Your task to perform on an android device: turn on translation in the chrome app Image 0: 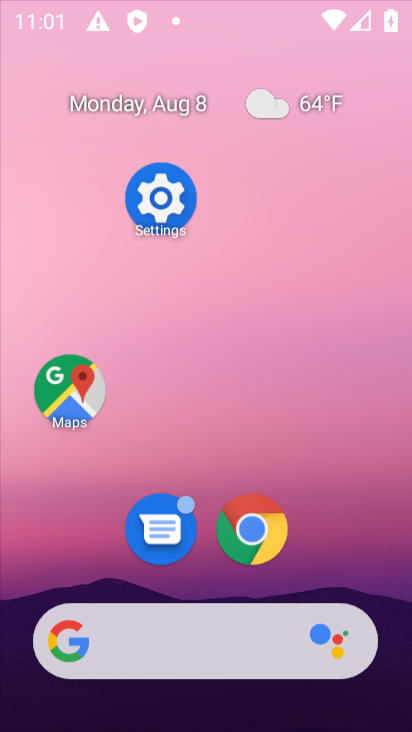
Step 0: click (229, 310)
Your task to perform on an android device: turn on translation in the chrome app Image 1: 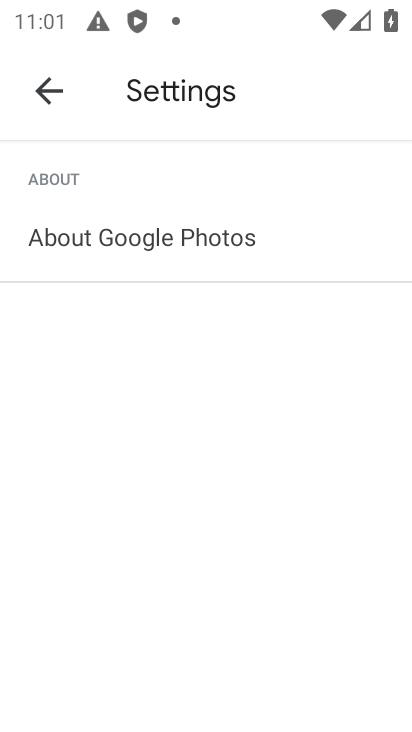
Step 1: drag from (211, 579) to (215, 310)
Your task to perform on an android device: turn on translation in the chrome app Image 2: 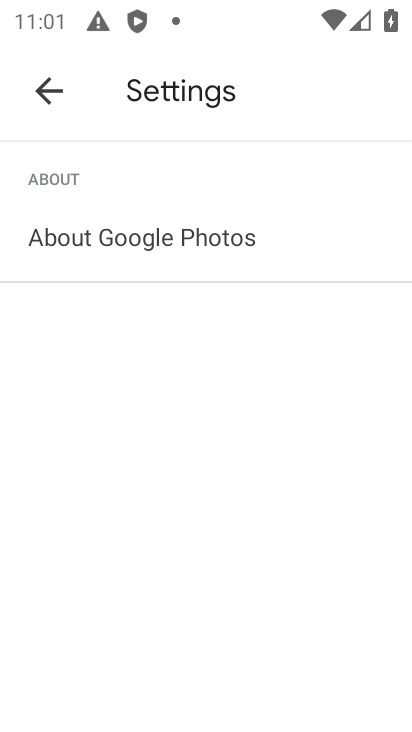
Step 2: click (33, 96)
Your task to perform on an android device: turn on translation in the chrome app Image 3: 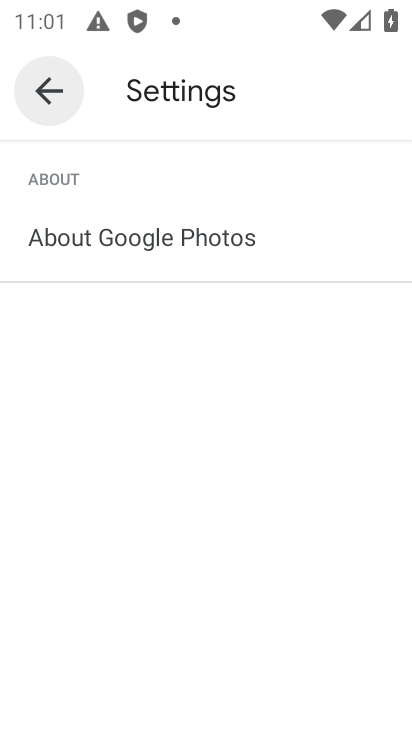
Step 3: click (33, 97)
Your task to perform on an android device: turn on translation in the chrome app Image 4: 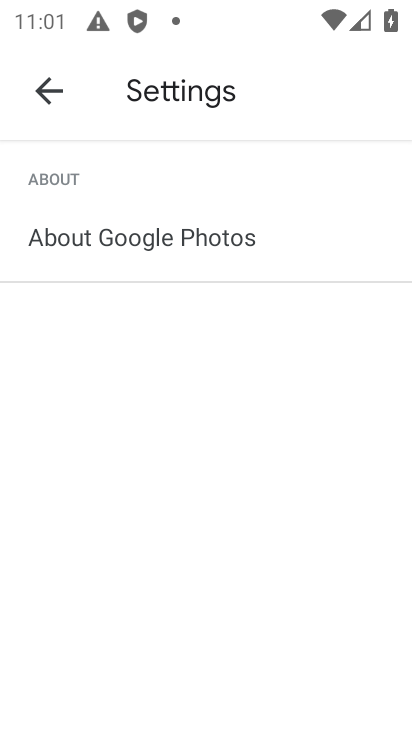
Step 4: click (34, 98)
Your task to perform on an android device: turn on translation in the chrome app Image 5: 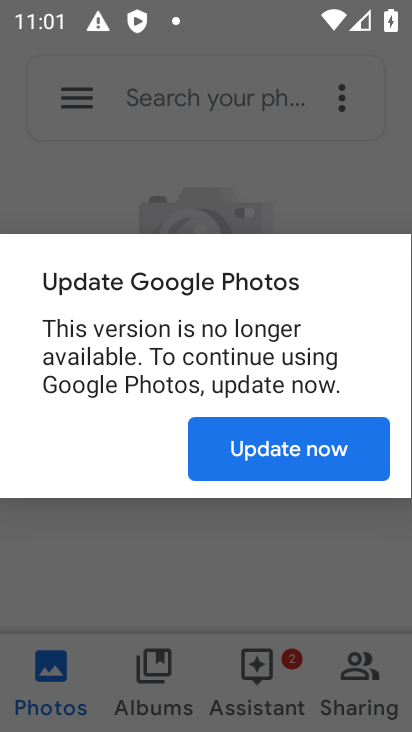
Step 5: press back button
Your task to perform on an android device: turn on translation in the chrome app Image 6: 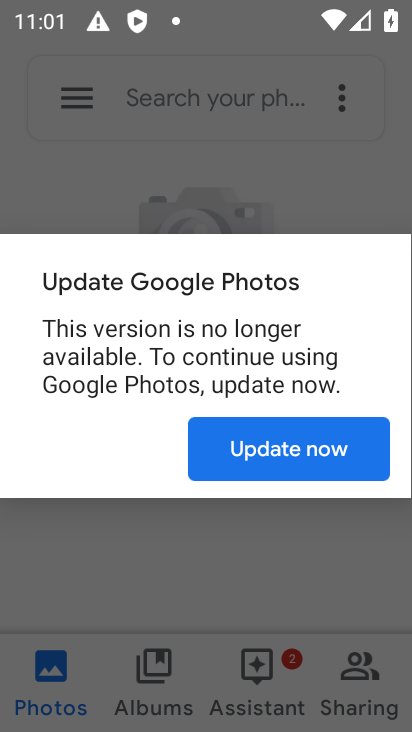
Step 6: press back button
Your task to perform on an android device: turn on translation in the chrome app Image 7: 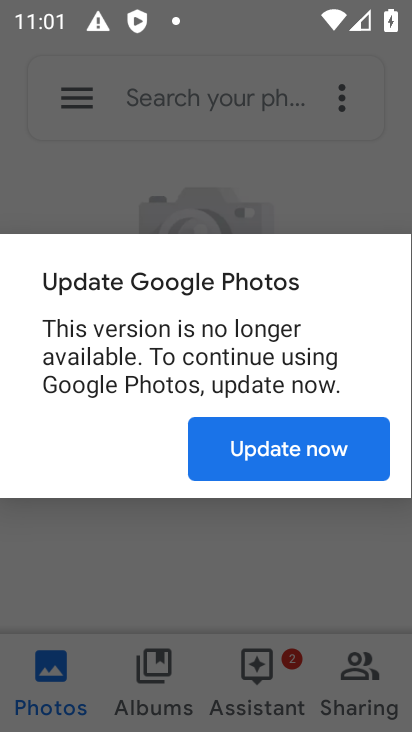
Step 7: press back button
Your task to perform on an android device: turn on translation in the chrome app Image 8: 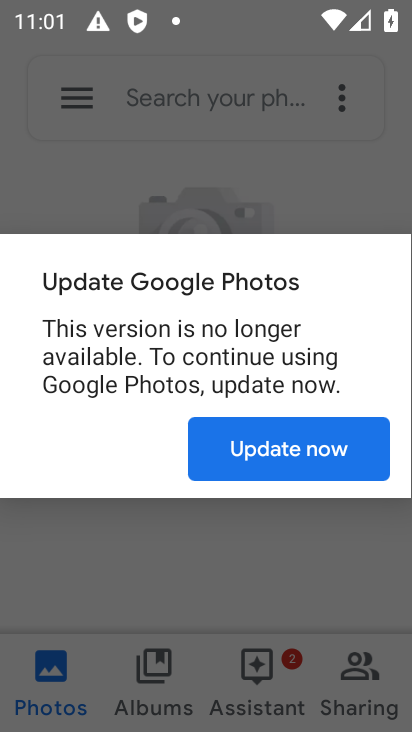
Step 8: press home button
Your task to perform on an android device: turn on translation in the chrome app Image 9: 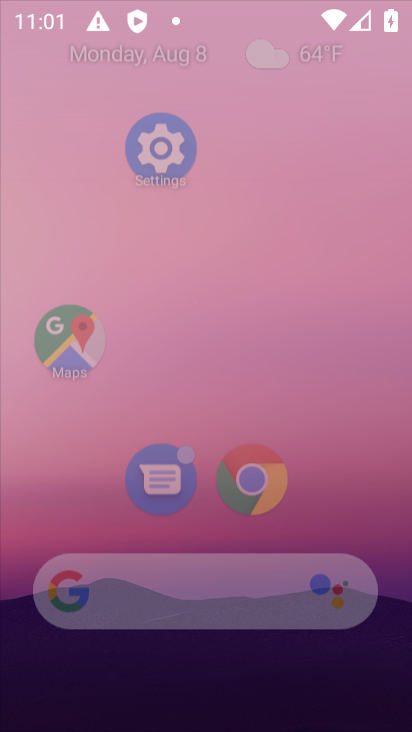
Step 9: press back button
Your task to perform on an android device: turn on translation in the chrome app Image 10: 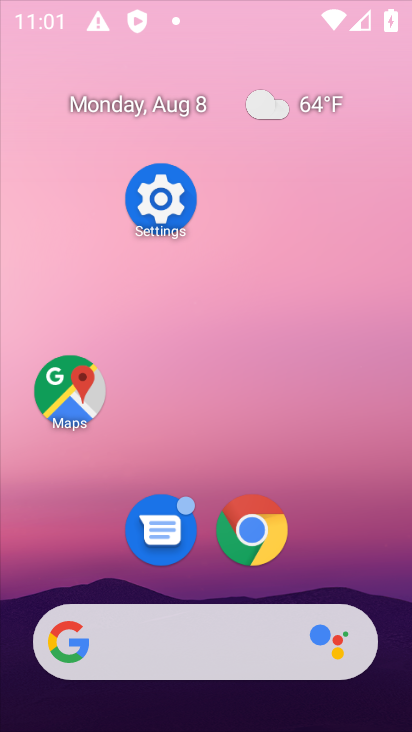
Step 10: press back button
Your task to perform on an android device: turn on translation in the chrome app Image 11: 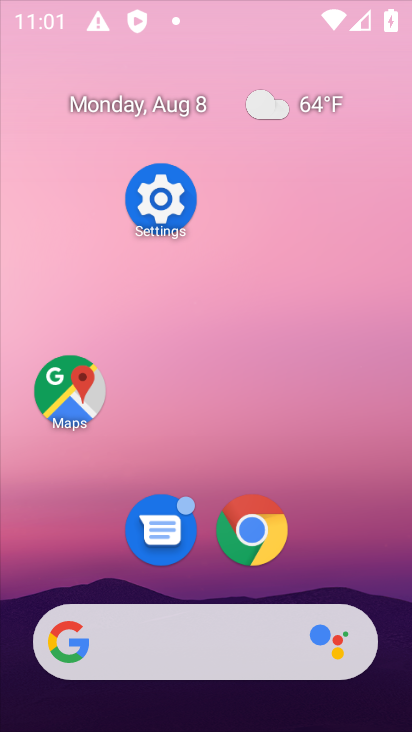
Step 11: drag from (203, 659) to (136, 210)
Your task to perform on an android device: turn on translation in the chrome app Image 12: 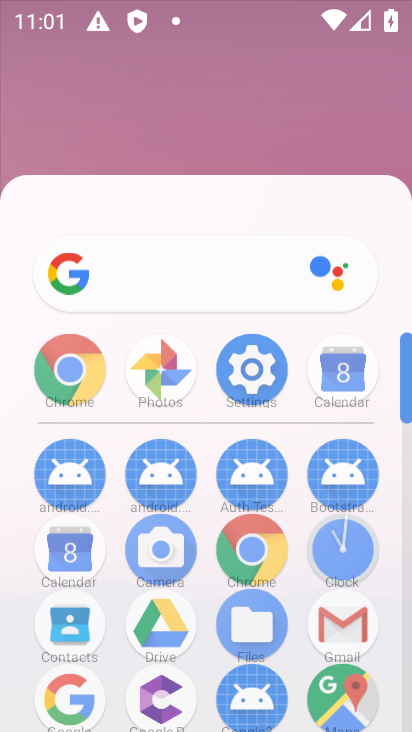
Step 12: drag from (191, 647) to (149, 211)
Your task to perform on an android device: turn on translation in the chrome app Image 13: 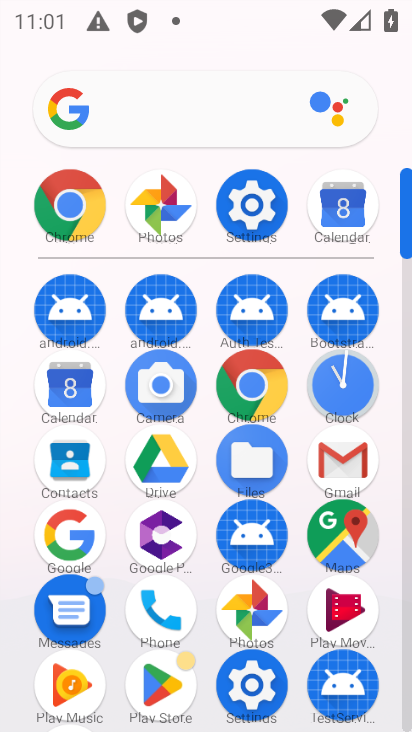
Step 13: drag from (183, 557) to (160, 183)
Your task to perform on an android device: turn on translation in the chrome app Image 14: 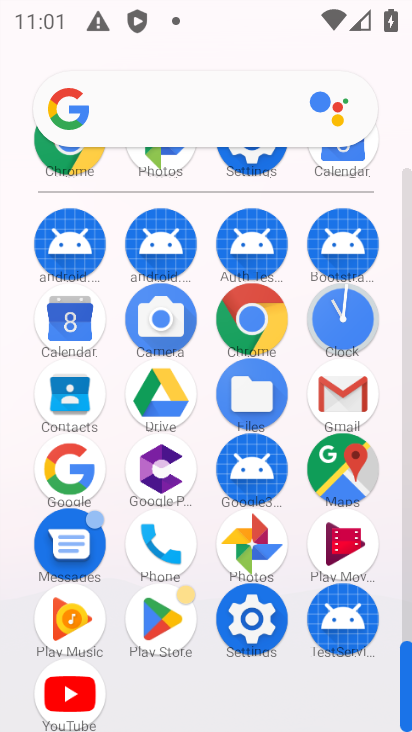
Step 14: click (242, 325)
Your task to perform on an android device: turn on translation in the chrome app Image 15: 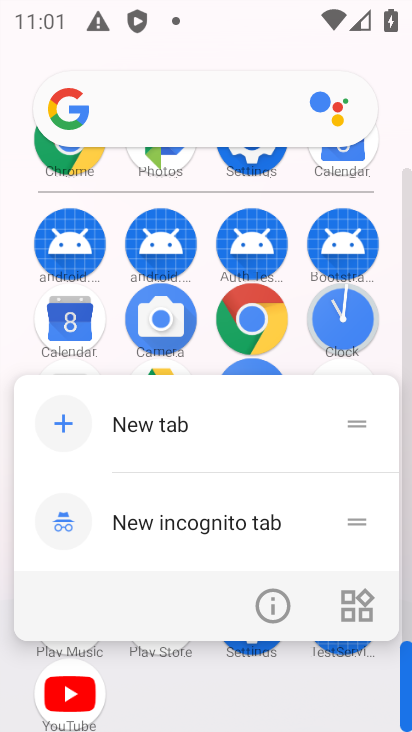
Step 15: click (248, 318)
Your task to perform on an android device: turn on translation in the chrome app Image 16: 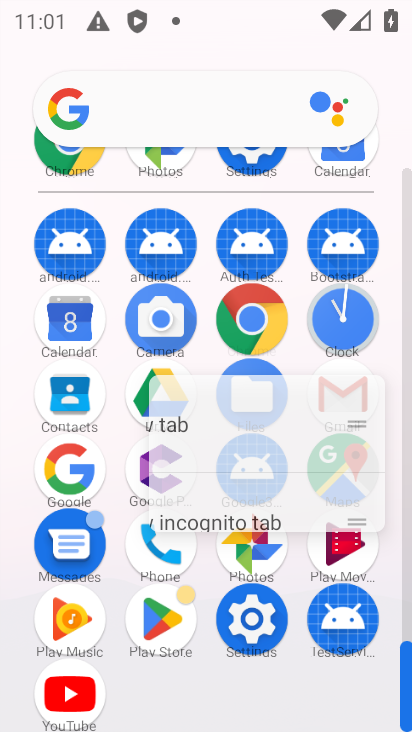
Step 16: click (250, 319)
Your task to perform on an android device: turn on translation in the chrome app Image 17: 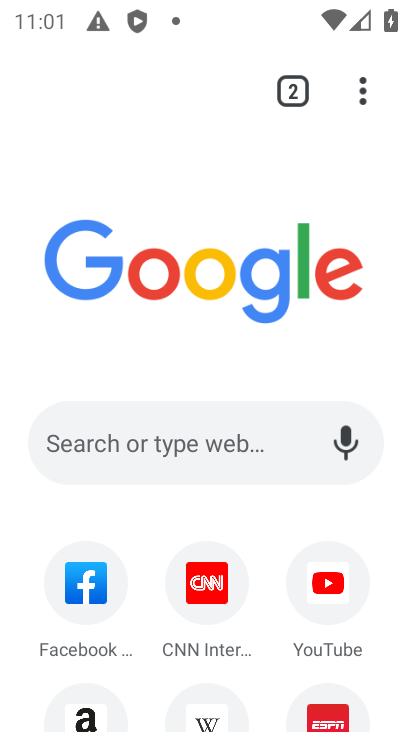
Step 17: press back button
Your task to perform on an android device: turn on translation in the chrome app Image 18: 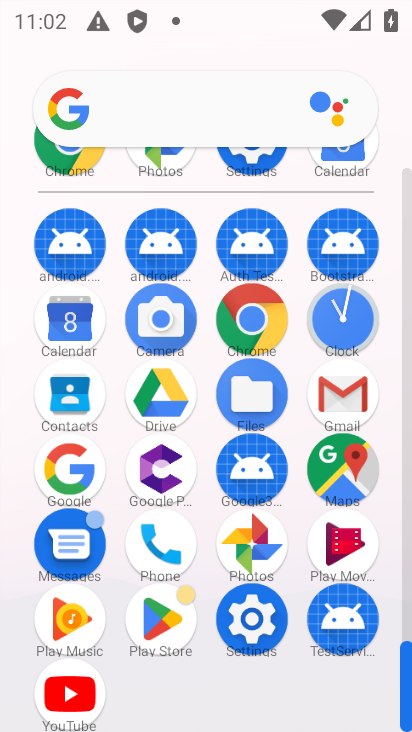
Step 18: click (257, 322)
Your task to perform on an android device: turn on translation in the chrome app Image 19: 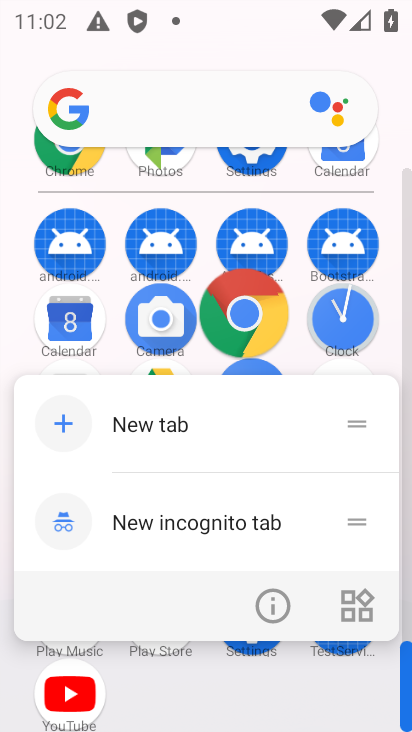
Step 19: click (249, 316)
Your task to perform on an android device: turn on translation in the chrome app Image 20: 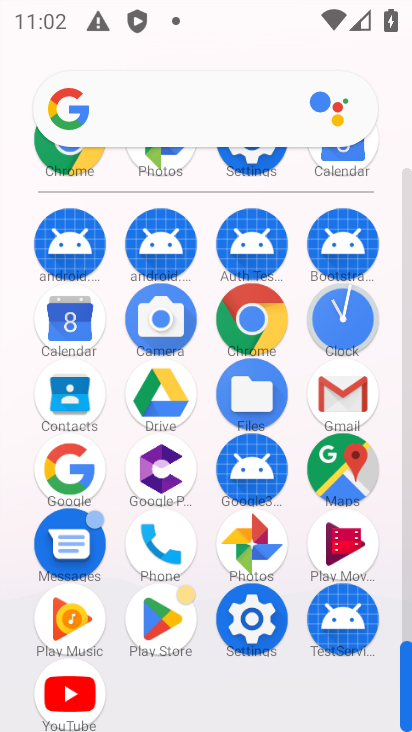
Step 20: click (254, 309)
Your task to perform on an android device: turn on translation in the chrome app Image 21: 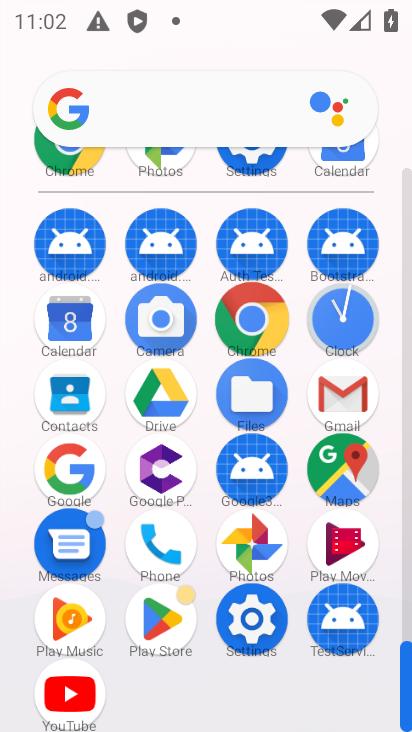
Step 21: click (256, 309)
Your task to perform on an android device: turn on translation in the chrome app Image 22: 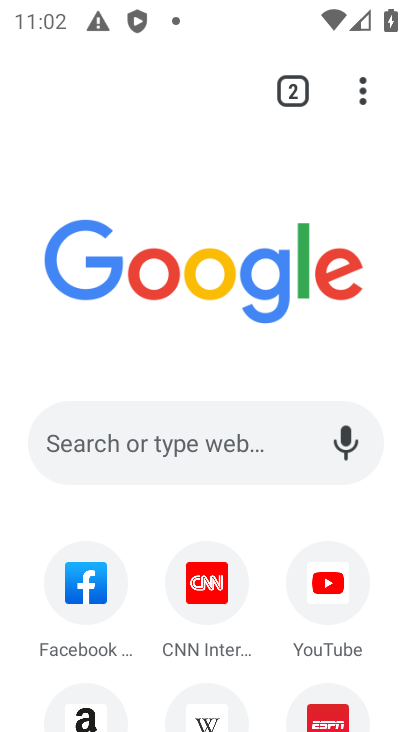
Step 22: drag from (363, 97) to (61, 549)
Your task to perform on an android device: turn on translation in the chrome app Image 23: 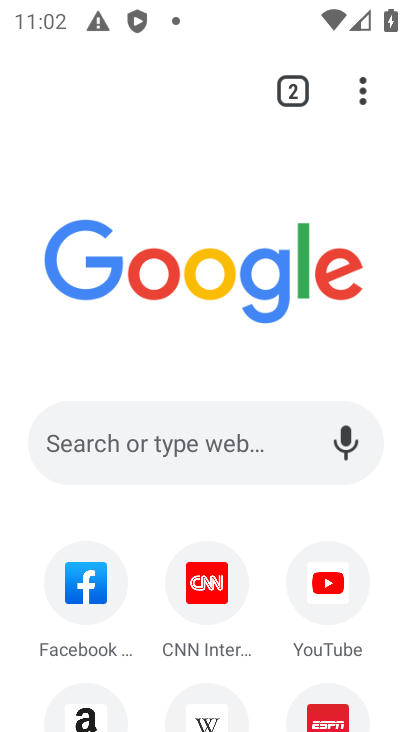
Step 23: click (62, 549)
Your task to perform on an android device: turn on translation in the chrome app Image 24: 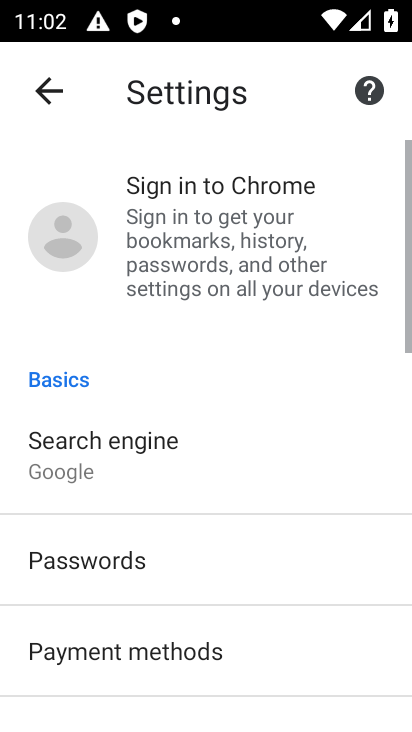
Step 24: drag from (152, 540) to (160, 77)
Your task to perform on an android device: turn on translation in the chrome app Image 25: 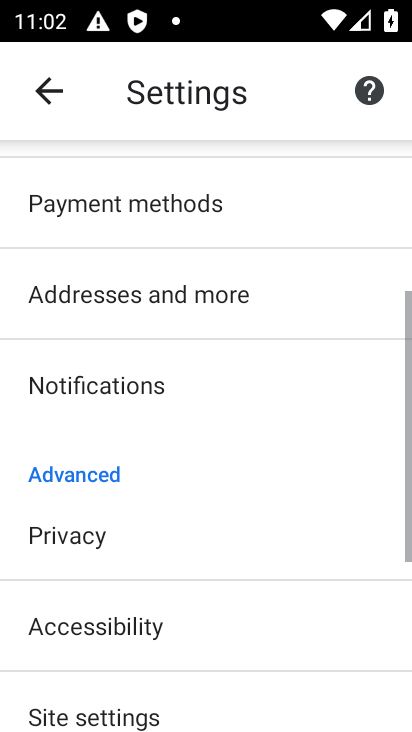
Step 25: drag from (171, 401) to (171, 96)
Your task to perform on an android device: turn on translation in the chrome app Image 26: 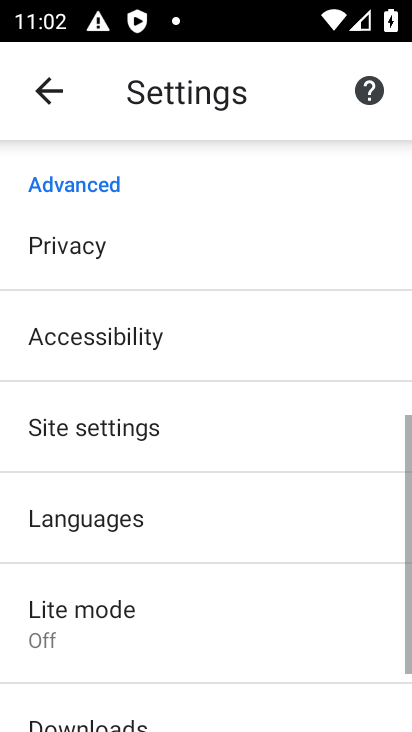
Step 26: drag from (185, 507) to (186, 155)
Your task to perform on an android device: turn on translation in the chrome app Image 27: 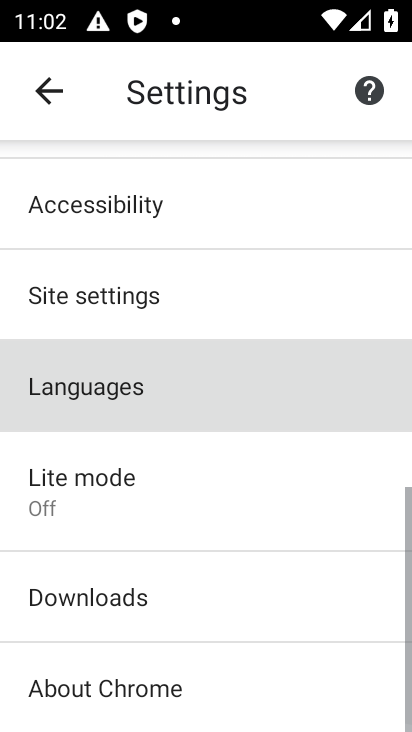
Step 27: click (192, 615)
Your task to perform on an android device: turn on translation in the chrome app Image 28: 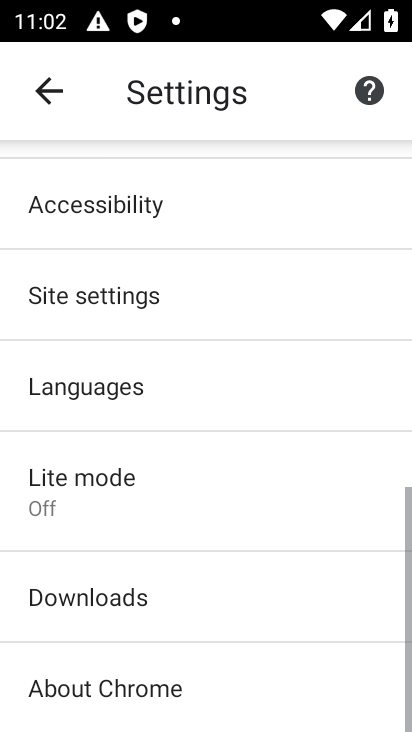
Step 28: click (132, 384)
Your task to perform on an android device: turn on translation in the chrome app Image 29: 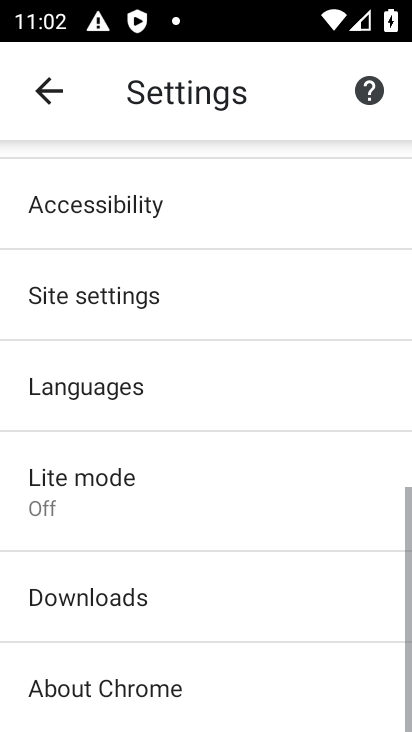
Step 29: click (132, 384)
Your task to perform on an android device: turn on translation in the chrome app Image 30: 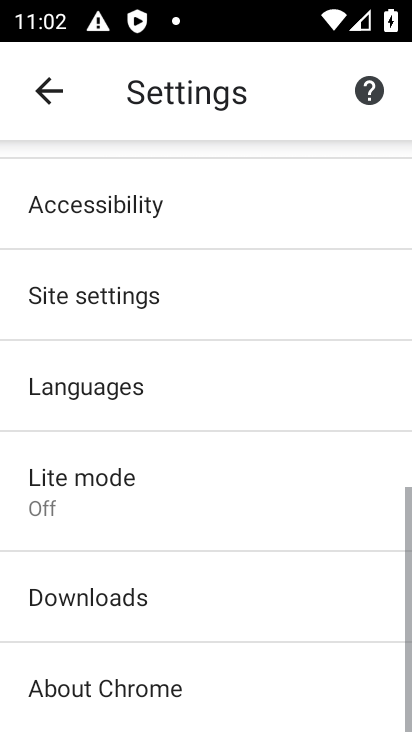
Step 30: click (133, 378)
Your task to perform on an android device: turn on translation in the chrome app Image 31: 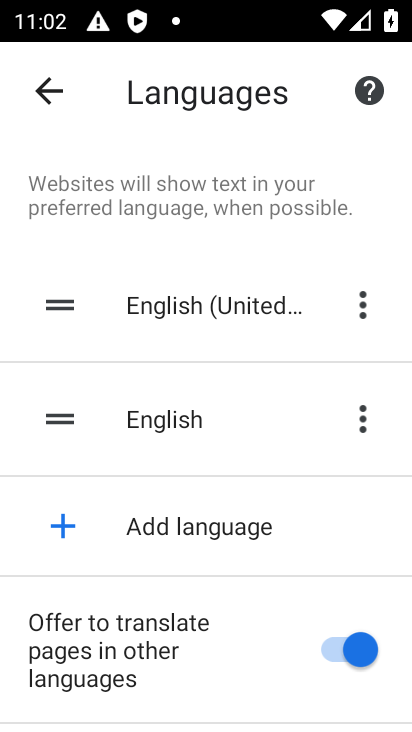
Step 31: task complete